Your task to perform on an android device: search for starred emails in the gmail app Image 0: 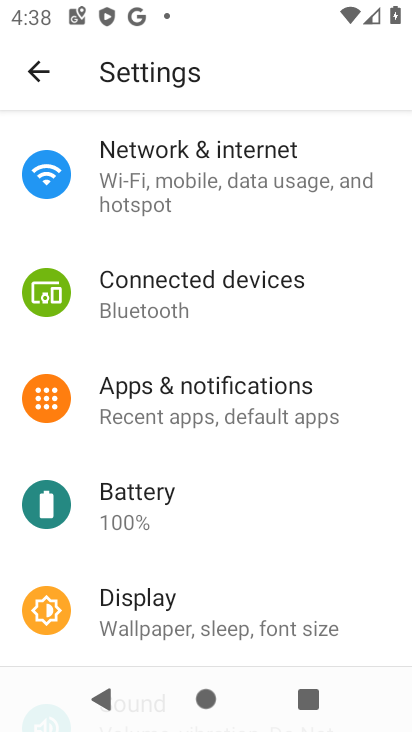
Step 0: press home button
Your task to perform on an android device: search for starred emails in the gmail app Image 1: 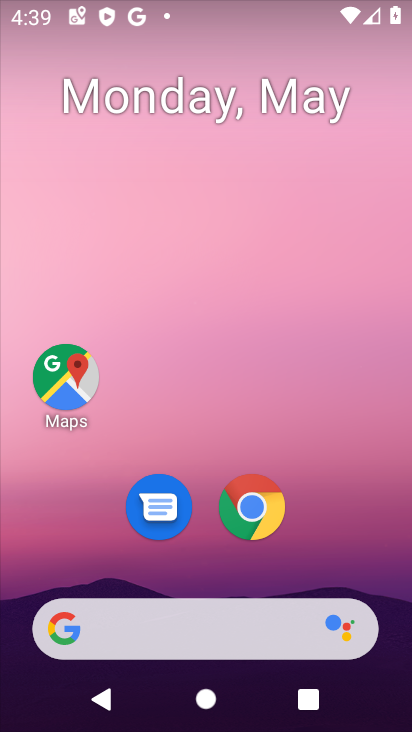
Step 1: drag from (366, 543) to (305, 128)
Your task to perform on an android device: search for starred emails in the gmail app Image 2: 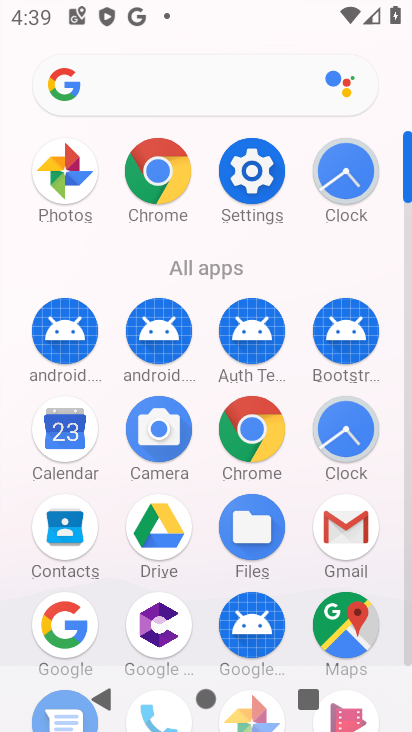
Step 2: click (364, 549)
Your task to perform on an android device: search for starred emails in the gmail app Image 3: 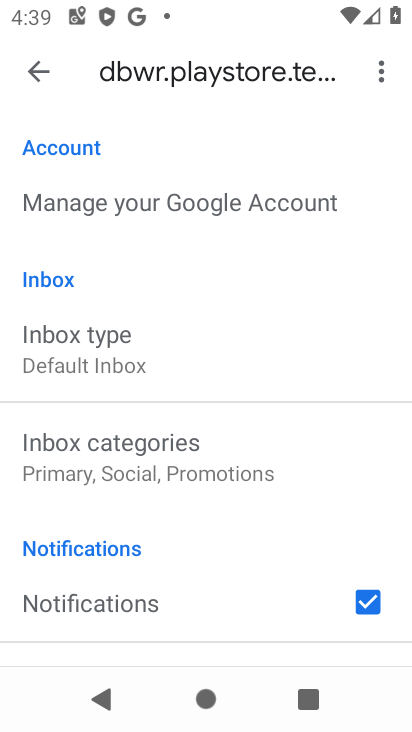
Step 3: drag from (203, 219) to (233, 635)
Your task to perform on an android device: search for starred emails in the gmail app Image 4: 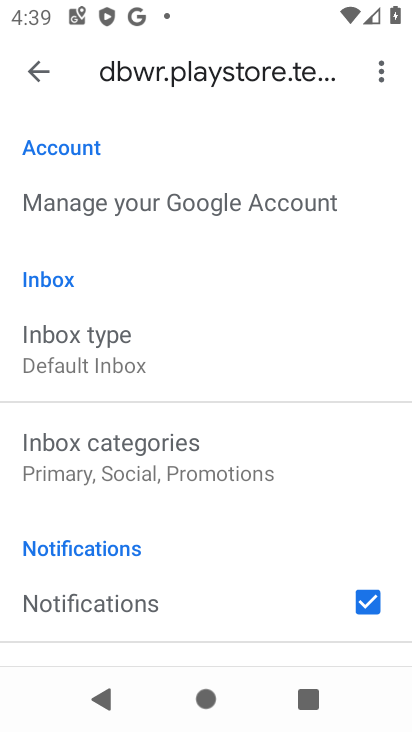
Step 4: click (50, 65)
Your task to perform on an android device: search for starred emails in the gmail app Image 5: 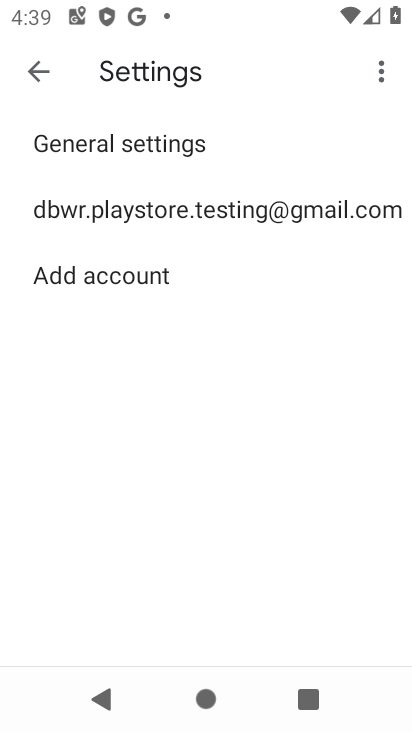
Step 5: click (50, 63)
Your task to perform on an android device: search for starred emails in the gmail app Image 6: 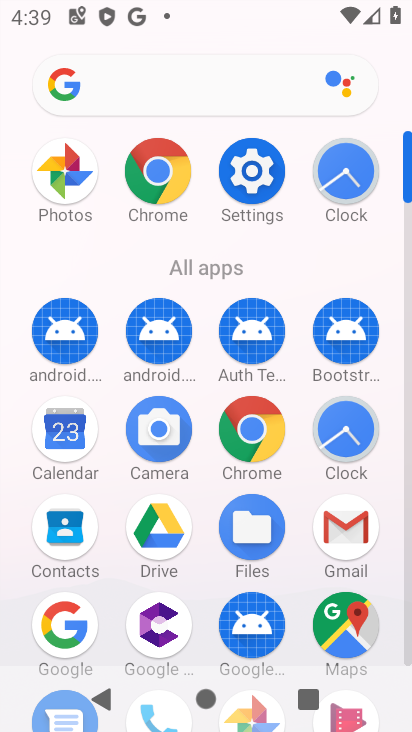
Step 6: click (356, 533)
Your task to perform on an android device: search for starred emails in the gmail app Image 7: 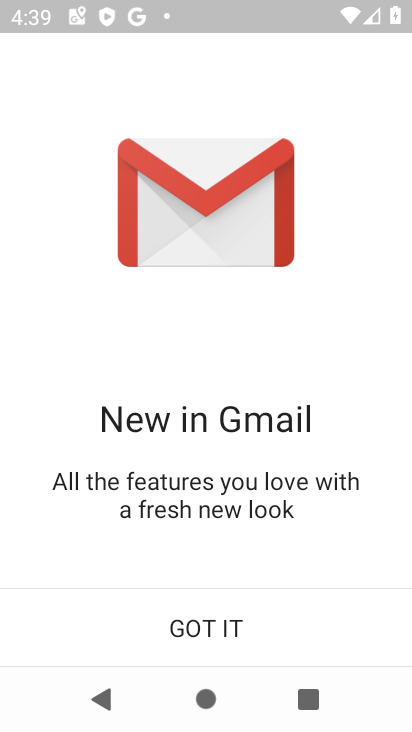
Step 7: click (205, 623)
Your task to perform on an android device: search for starred emails in the gmail app Image 8: 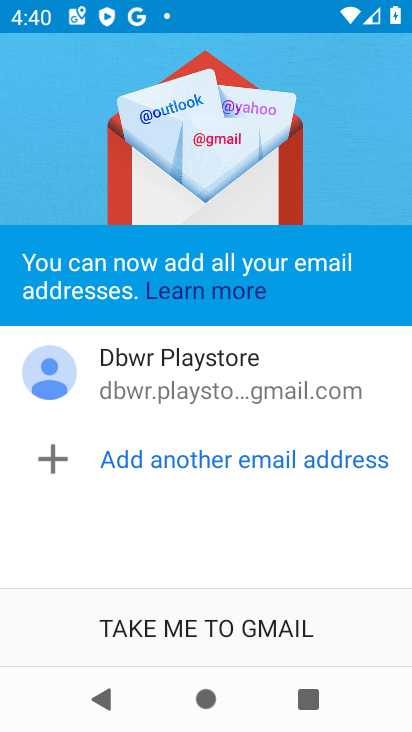
Step 8: click (248, 628)
Your task to perform on an android device: search for starred emails in the gmail app Image 9: 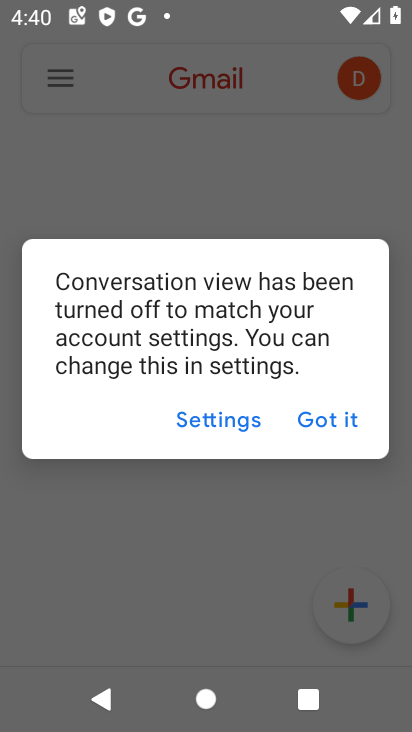
Step 9: click (327, 412)
Your task to perform on an android device: search for starred emails in the gmail app Image 10: 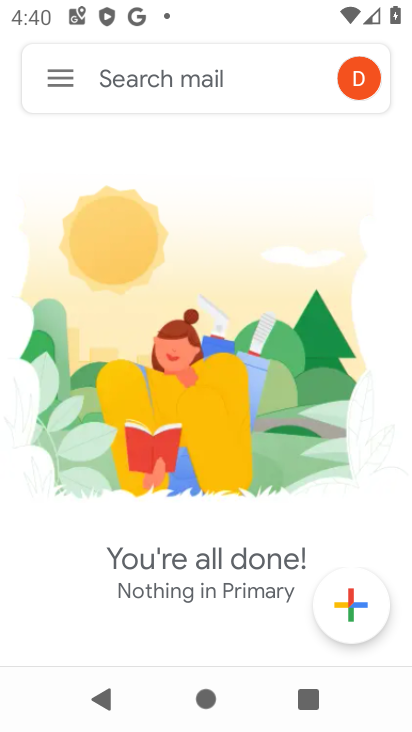
Step 10: click (47, 75)
Your task to perform on an android device: search for starred emails in the gmail app Image 11: 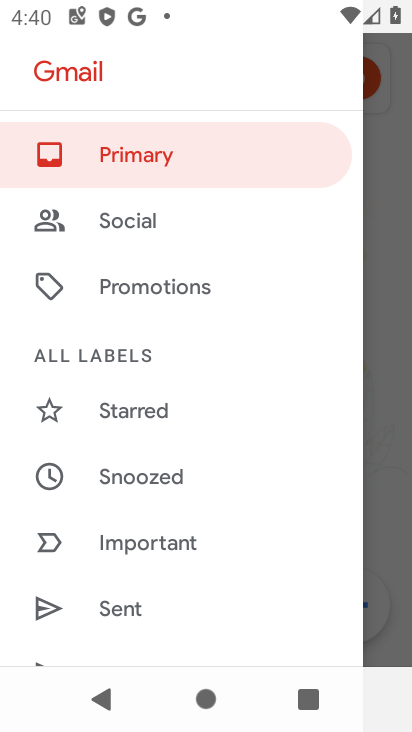
Step 11: click (116, 404)
Your task to perform on an android device: search for starred emails in the gmail app Image 12: 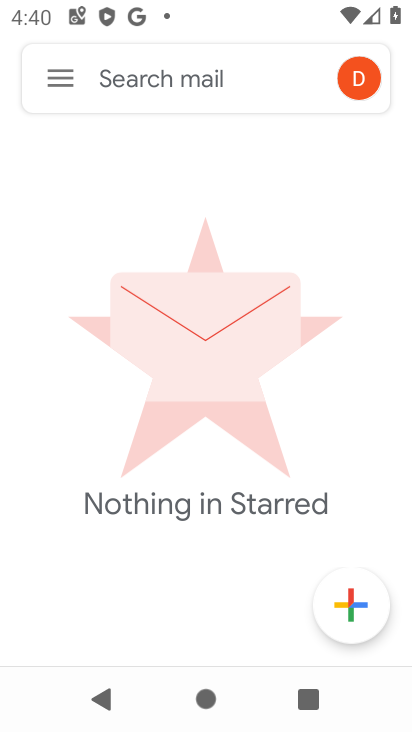
Step 12: task complete